Your task to perform on an android device: turn smart compose on in the gmail app Image 0: 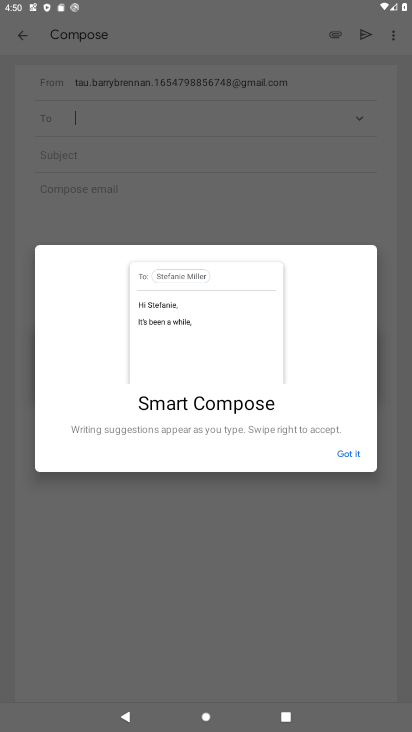
Step 0: press home button
Your task to perform on an android device: turn smart compose on in the gmail app Image 1: 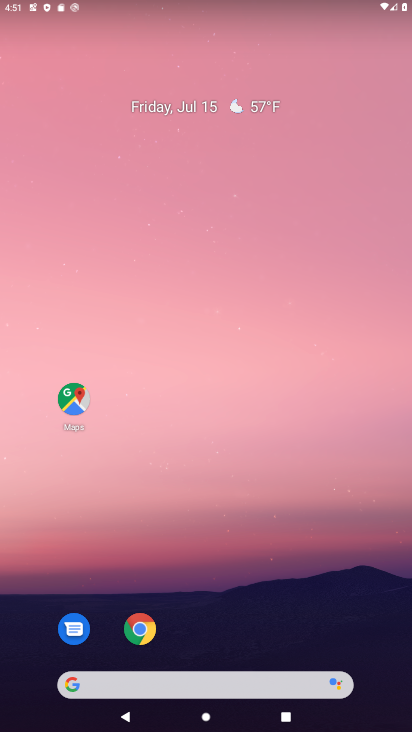
Step 1: drag from (270, 593) to (150, 9)
Your task to perform on an android device: turn smart compose on in the gmail app Image 2: 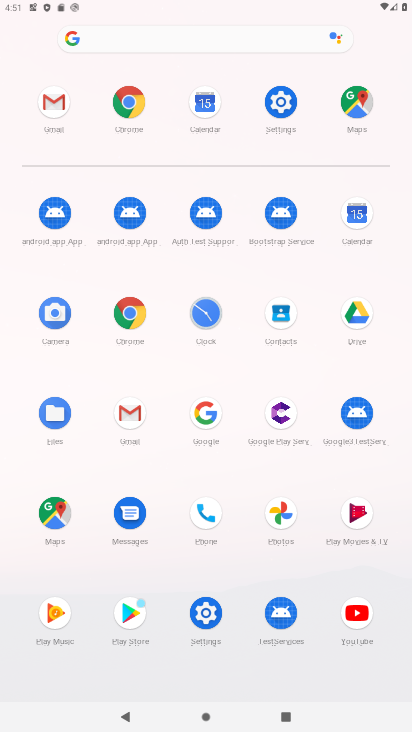
Step 2: click (48, 105)
Your task to perform on an android device: turn smart compose on in the gmail app Image 3: 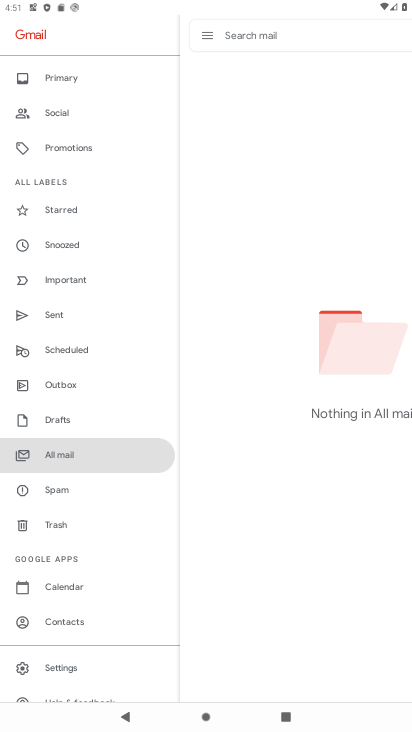
Step 3: click (51, 668)
Your task to perform on an android device: turn smart compose on in the gmail app Image 4: 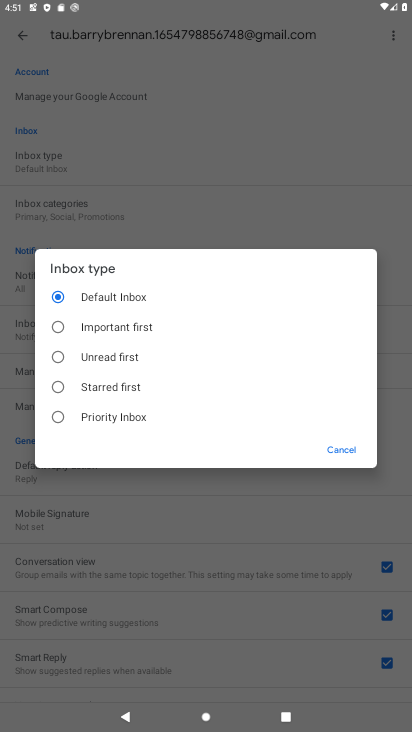
Step 4: click (349, 451)
Your task to perform on an android device: turn smart compose on in the gmail app Image 5: 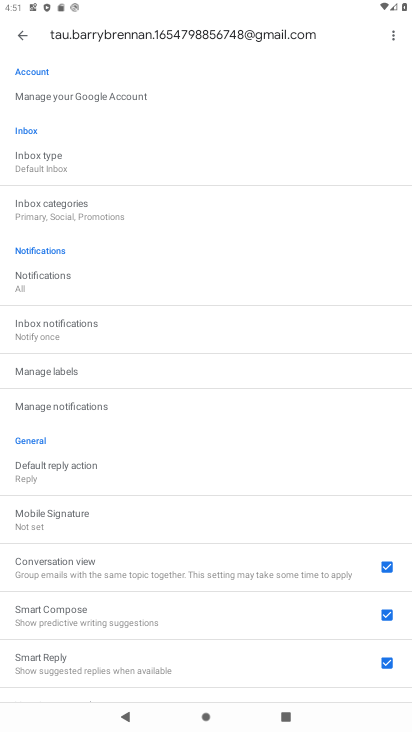
Step 5: task complete